Your task to perform on an android device: Open calendar and show me the second week of next month Image 0: 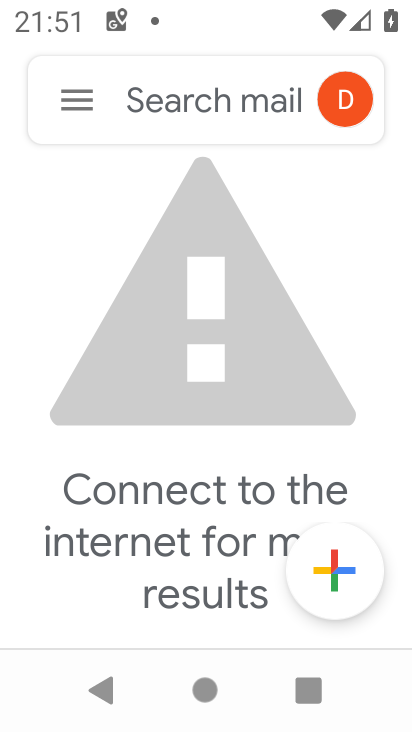
Step 0: press home button
Your task to perform on an android device: Open calendar and show me the second week of next month Image 1: 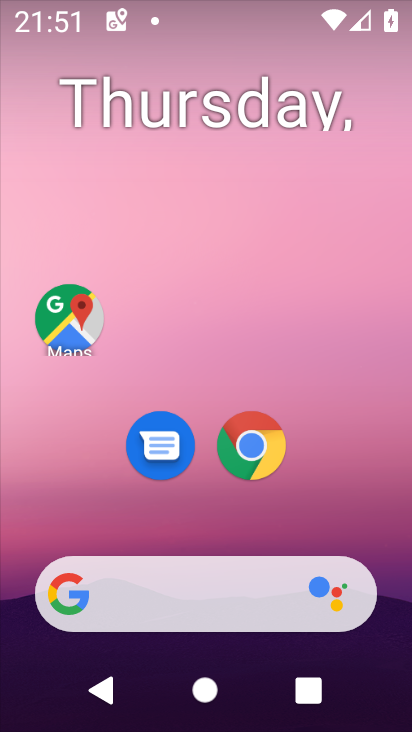
Step 1: drag from (199, 532) to (211, 180)
Your task to perform on an android device: Open calendar and show me the second week of next month Image 2: 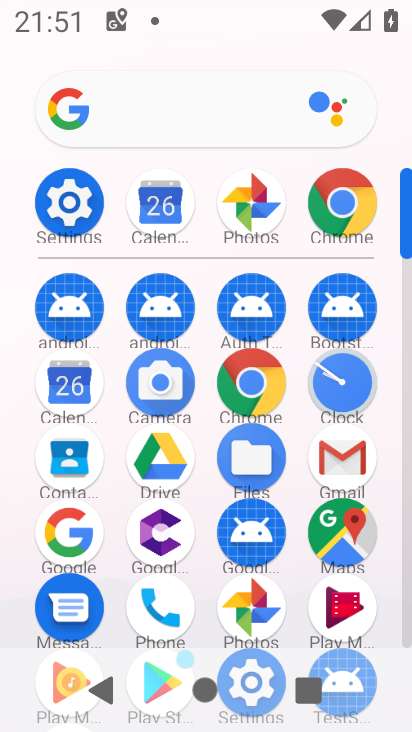
Step 2: click (66, 391)
Your task to perform on an android device: Open calendar and show me the second week of next month Image 3: 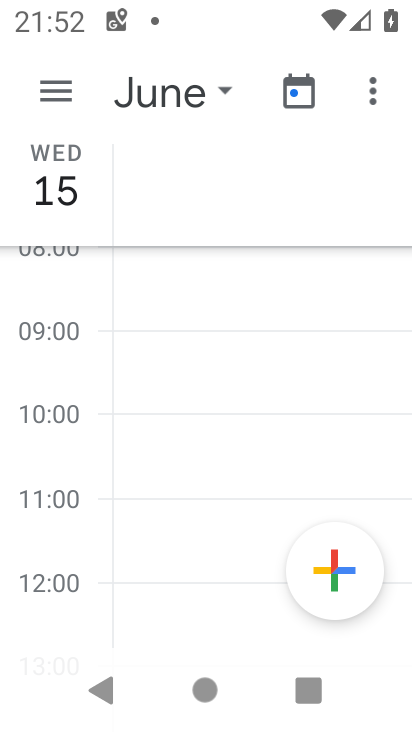
Step 3: click (178, 96)
Your task to perform on an android device: Open calendar and show me the second week of next month Image 4: 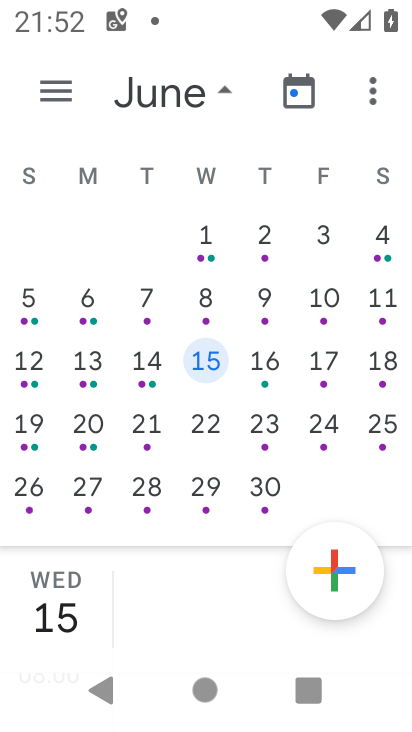
Step 4: drag from (318, 314) to (261, 356)
Your task to perform on an android device: Open calendar and show me the second week of next month Image 5: 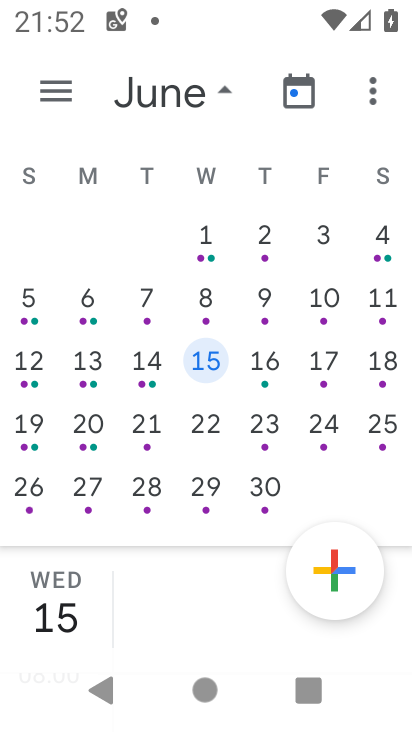
Step 5: click (36, 302)
Your task to perform on an android device: Open calendar and show me the second week of next month Image 6: 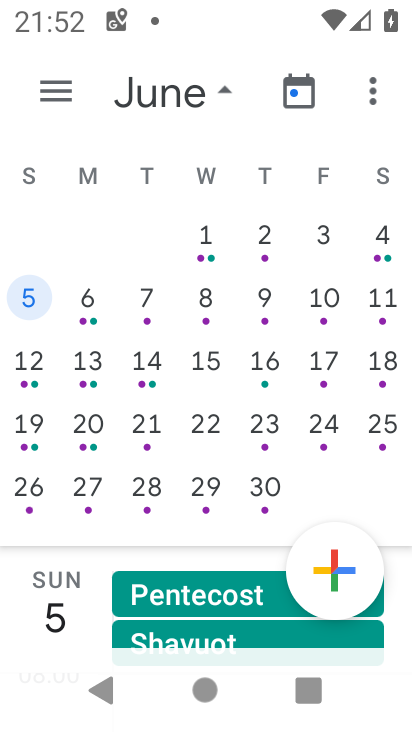
Step 6: click (154, 94)
Your task to perform on an android device: Open calendar and show me the second week of next month Image 7: 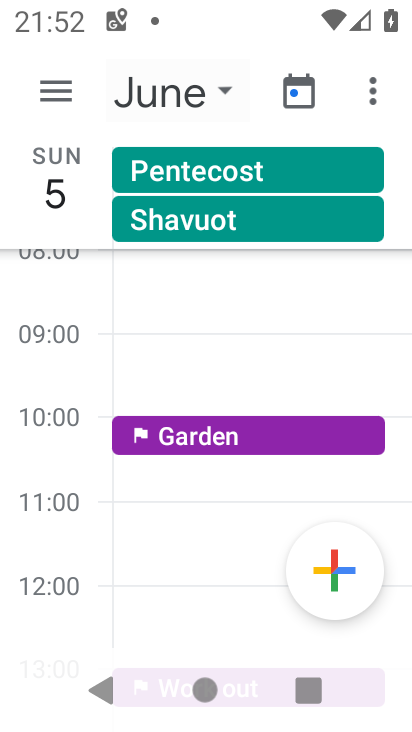
Step 7: click (36, 93)
Your task to perform on an android device: Open calendar and show me the second week of next month Image 8: 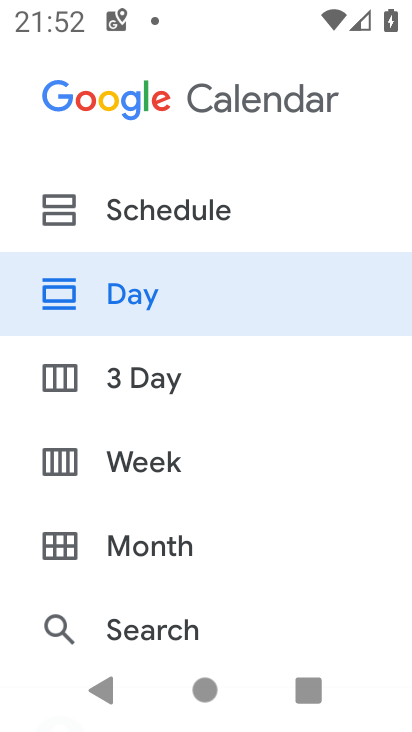
Step 8: click (143, 471)
Your task to perform on an android device: Open calendar and show me the second week of next month Image 9: 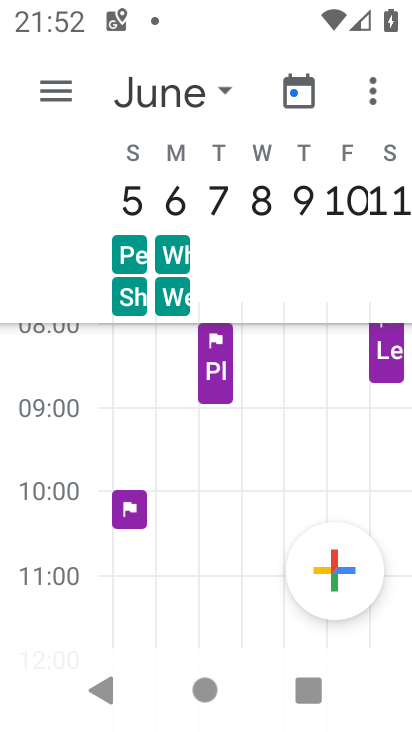
Step 9: task complete